Your task to perform on an android device: turn off notifications in google photos Image 0: 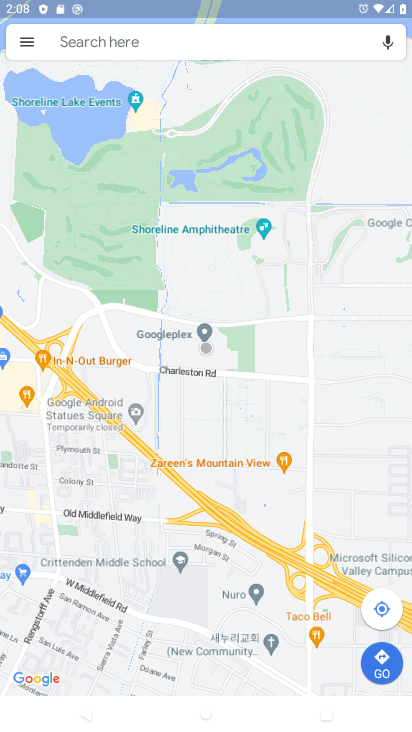
Step 0: press home button
Your task to perform on an android device: turn off notifications in google photos Image 1: 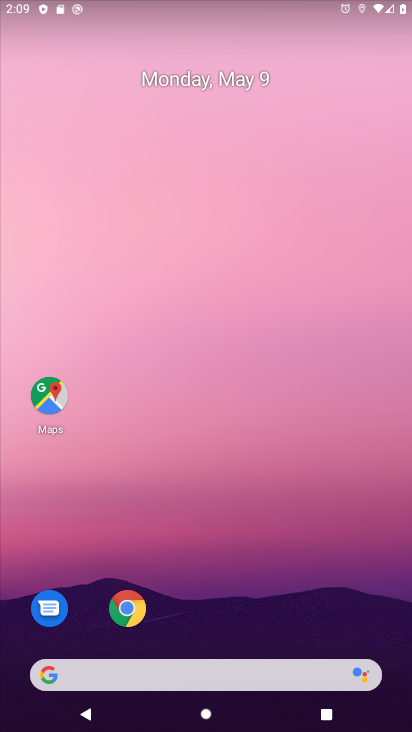
Step 1: drag from (191, 609) to (235, 10)
Your task to perform on an android device: turn off notifications in google photos Image 2: 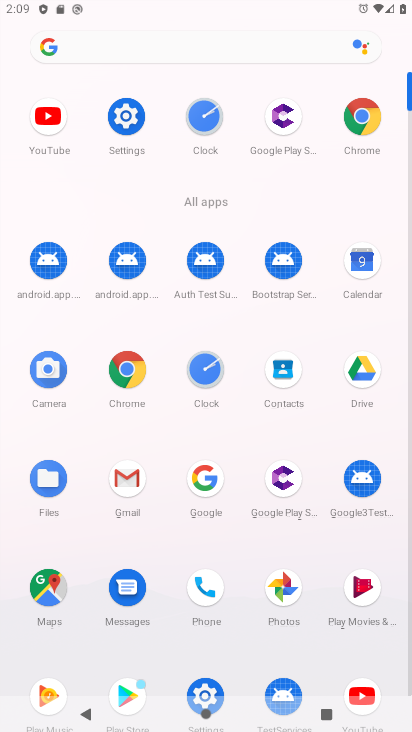
Step 2: click (279, 576)
Your task to perform on an android device: turn off notifications in google photos Image 3: 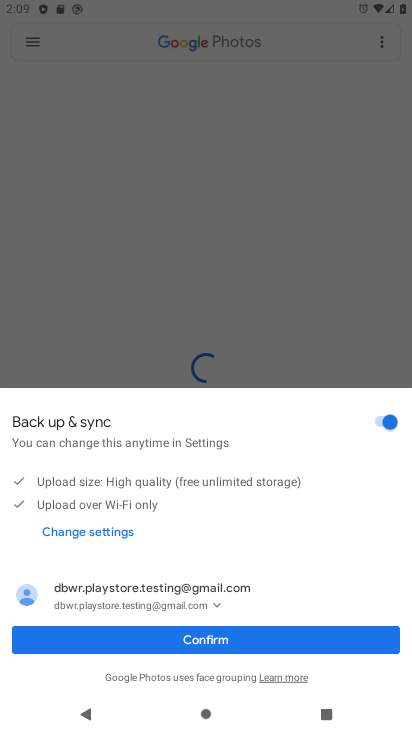
Step 3: click (122, 647)
Your task to perform on an android device: turn off notifications in google photos Image 4: 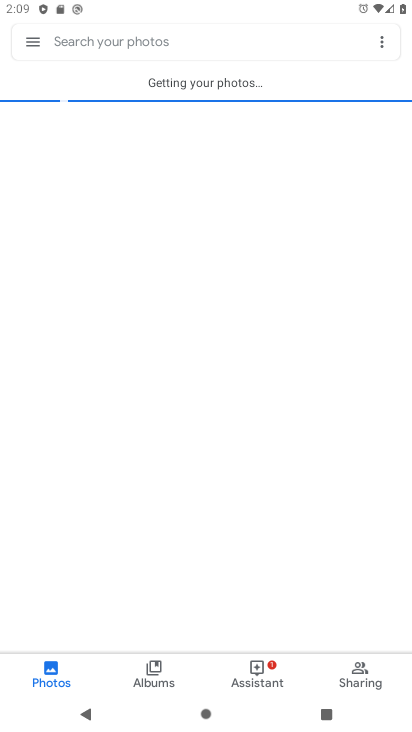
Step 4: click (34, 41)
Your task to perform on an android device: turn off notifications in google photos Image 5: 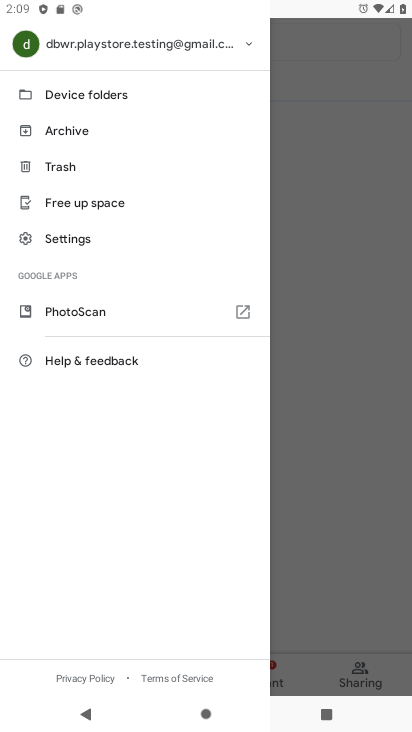
Step 5: click (86, 248)
Your task to perform on an android device: turn off notifications in google photos Image 6: 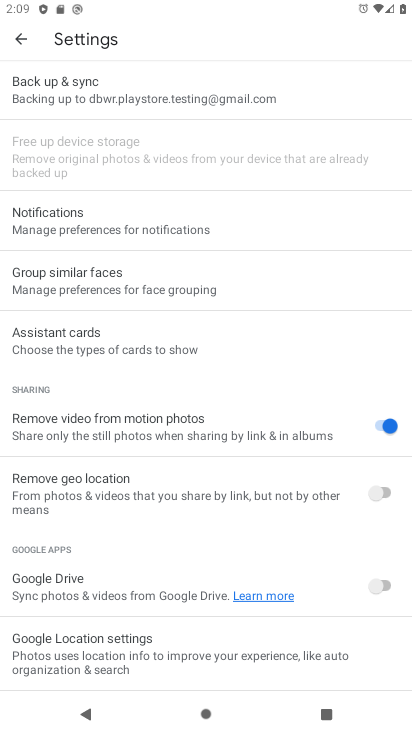
Step 6: click (114, 227)
Your task to perform on an android device: turn off notifications in google photos Image 7: 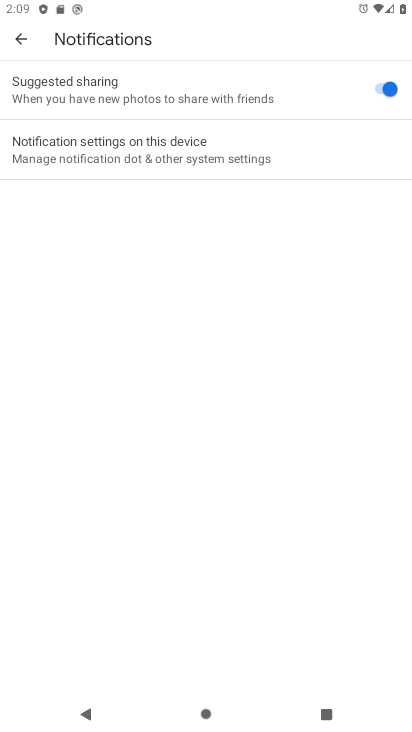
Step 7: click (379, 95)
Your task to perform on an android device: turn off notifications in google photos Image 8: 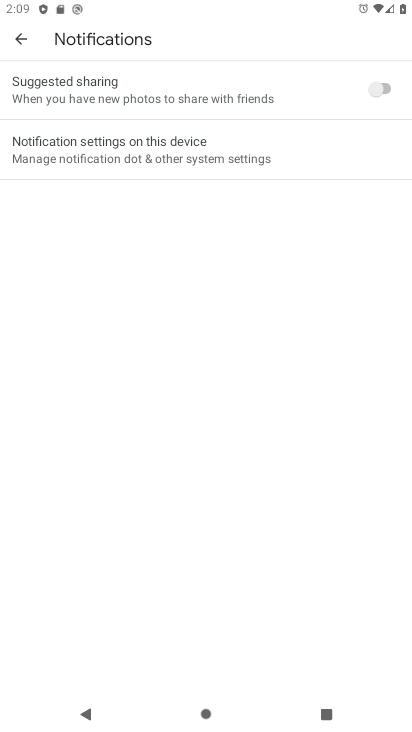
Step 8: task complete